Your task to perform on an android device: see sites visited before in the chrome app Image 0: 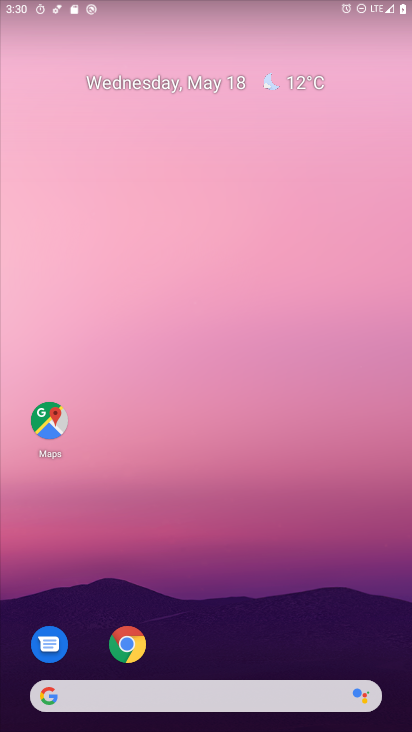
Step 0: click (121, 647)
Your task to perform on an android device: see sites visited before in the chrome app Image 1: 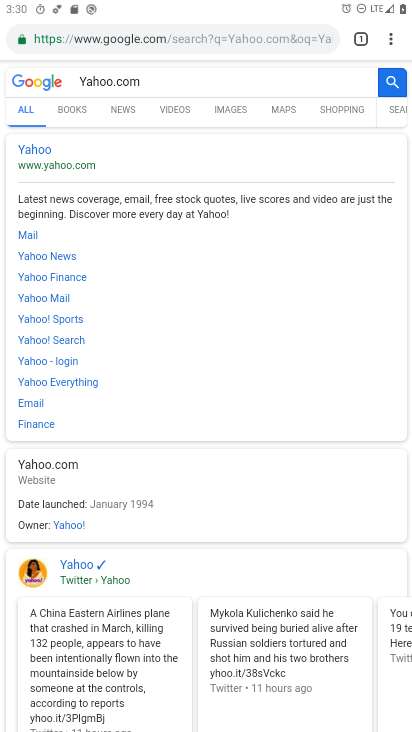
Step 1: click (390, 36)
Your task to perform on an android device: see sites visited before in the chrome app Image 2: 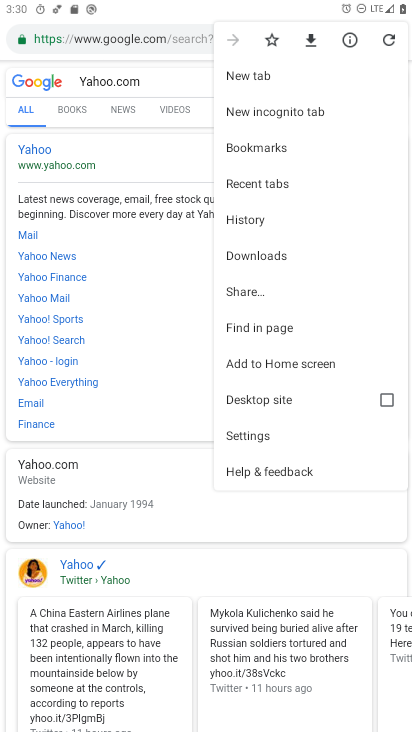
Step 2: click (260, 179)
Your task to perform on an android device: see sites visited before in the chrome app Image 3: 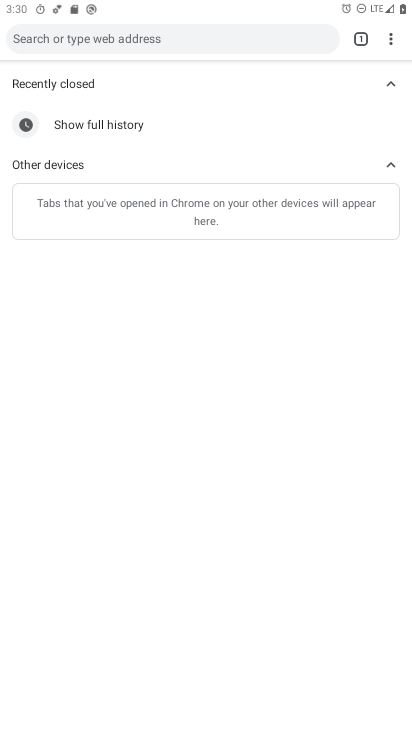
Step 3: task complete